Your task to perform on an android device: Open the stopwatch Image 0: 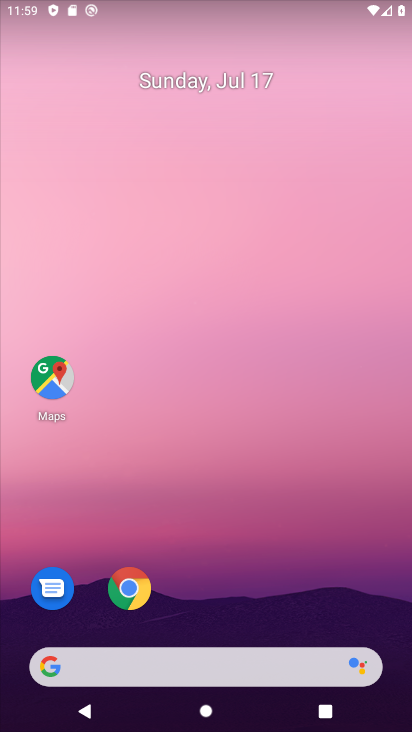
Step 0: drag from (242, 701) to (267, 63)
Your task to perform on an android device: Open the stopwatch Image 1: 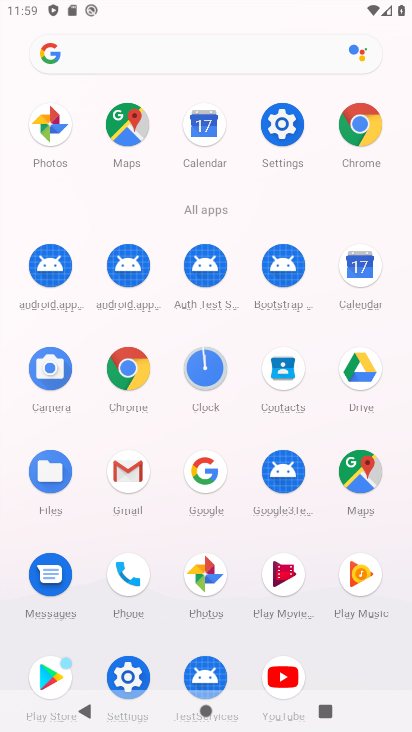
Step 1: click (209, 366)
Your task to perform on an android device: Open the stopwatch Image 2: 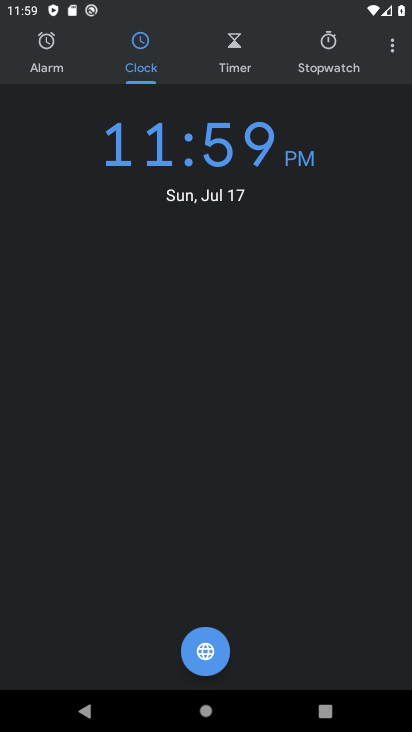
Step 2: click (328, 46)
Your task to perform on an android device: Open the stopwatch Image 3: 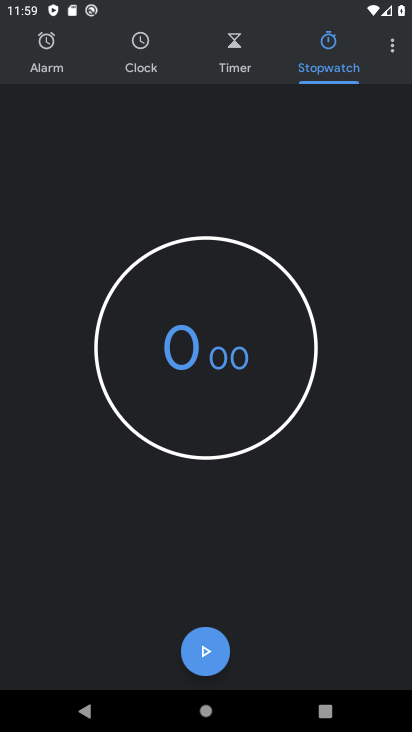
Step 3: task complete